Your task to perform on an android device: toggle show notifications on the lock screen Image 0: 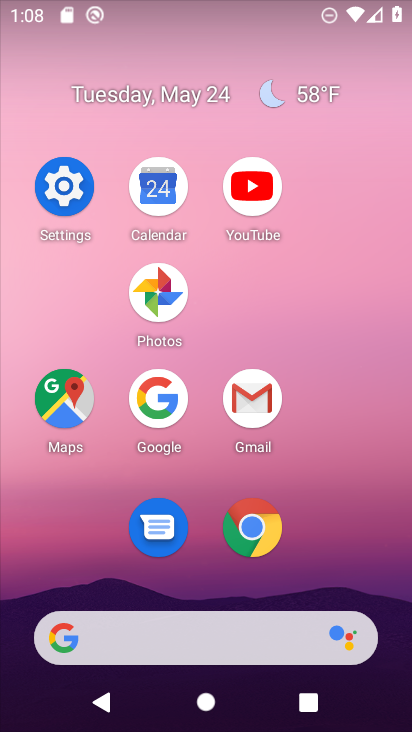
Step 0: click (72, 190)
Your task to perform on an android device: toggle show notifications on the lock screen Image 1: 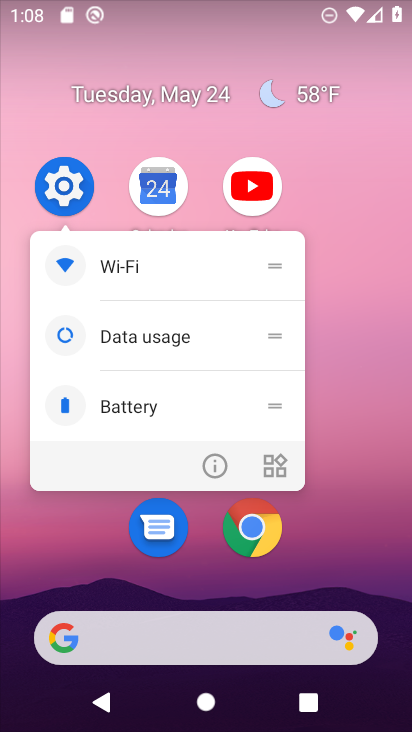
Step 1: click (72, 164)
Your task to perform on an android device: toggle show notifications on the lock screen Image 2: 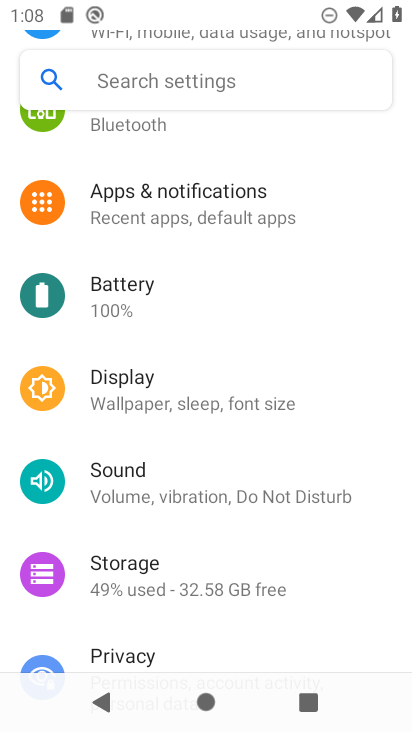
Step 2: click (132, 211)
Your task to perform on an android device: toggle show notifications on the lock screen Image 3: 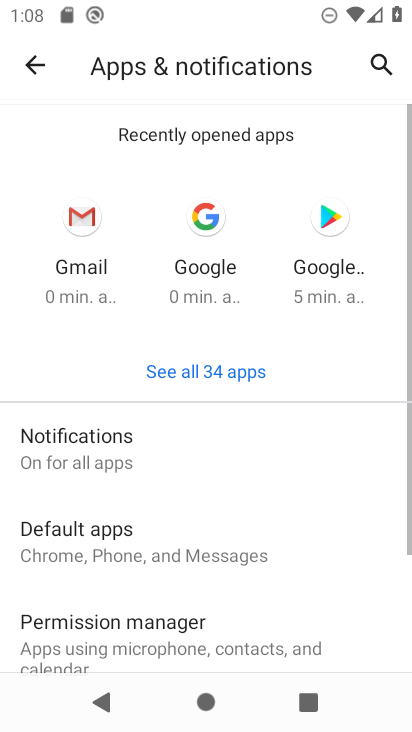
Step 3: click (104, 446)
Your task to perform on an android device: toggle show notifications on the lock screen Image 4: 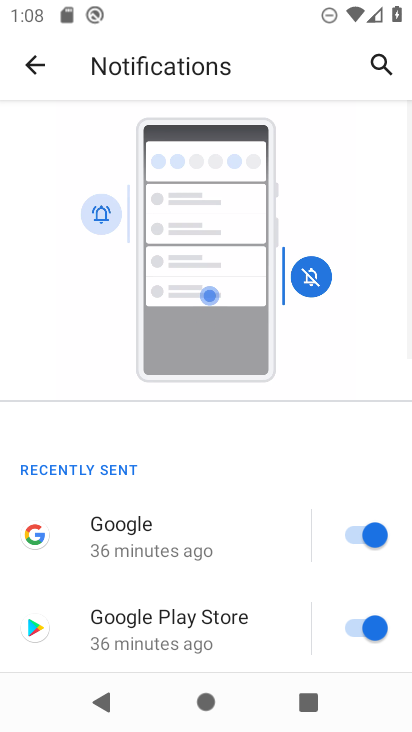
Step 4: drag from (165, 356) to (182, 174)
Your task to perform on an android device: toggle show notifications on the lock screen Image 5: 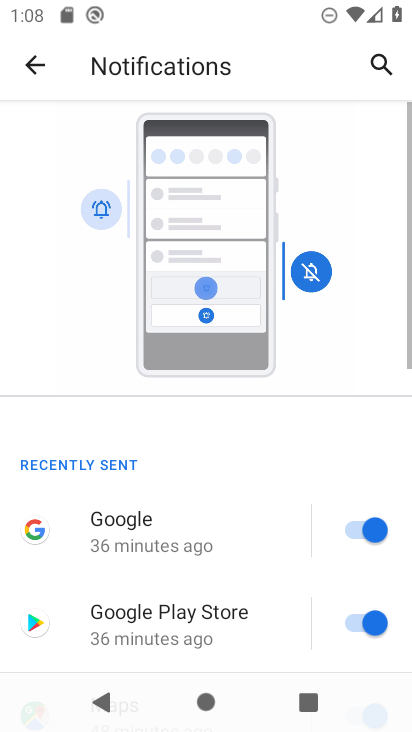
Step 5: drag from (199, 649) to (243, 223)
Your task to perform on an android device: toggle show notifications on the lock screen Image 6: 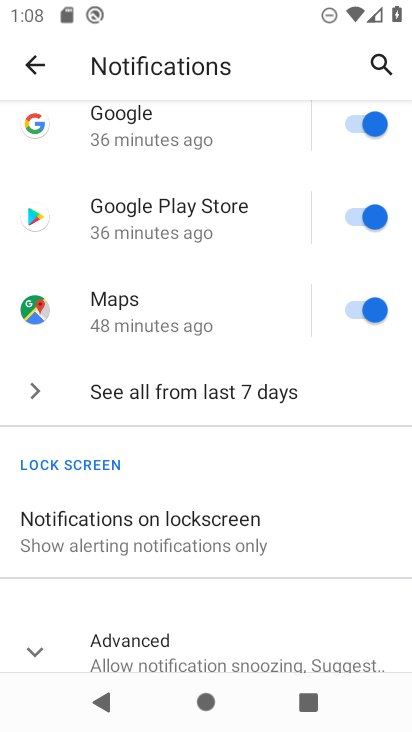
Step 6: click (148, 514)
Your task to perform on an android device: toggle show notifications on the lock screen Image 7: 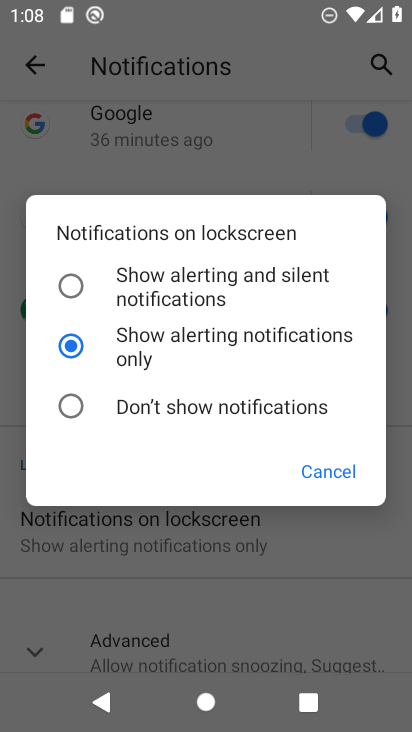
Step 7: click (230, 279)
Your task to perform on an android device: toggle show notifications on the lock screen Image 8: 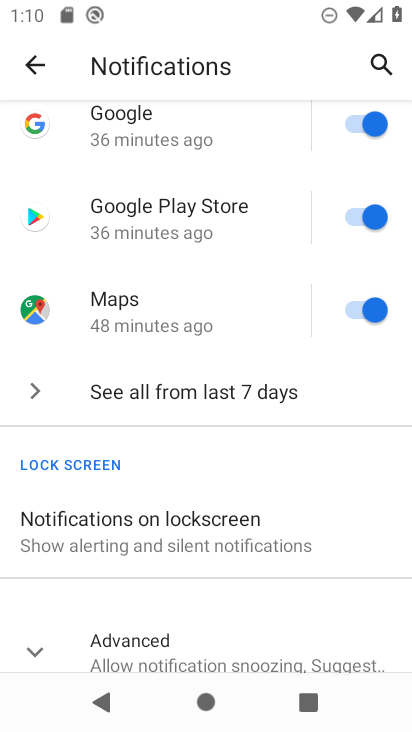
Step 8: click (215, 530)
Your task to perform on an android device: toggle show notifications on the lock screen Image 9: 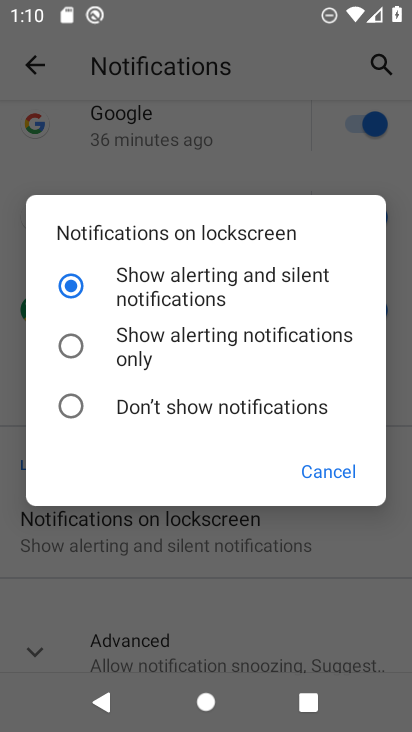
Step 9: task complete